Your task to perform on an android device: toggle show notifications on the lock screen Image 0: 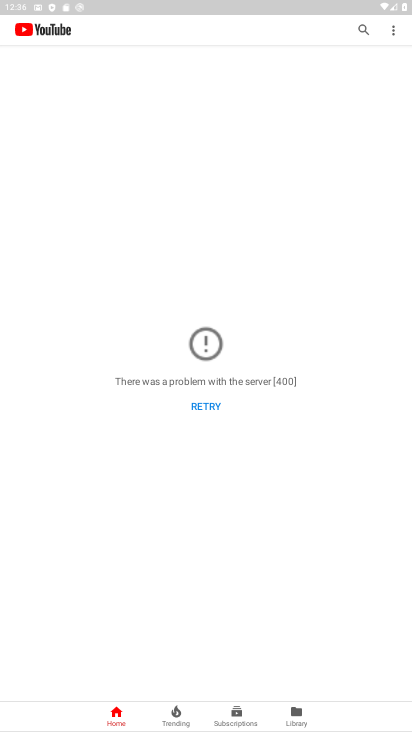
Step 0: press home button
Your task to perform on an android device: toggle show notifications on the lock screen Image 1: 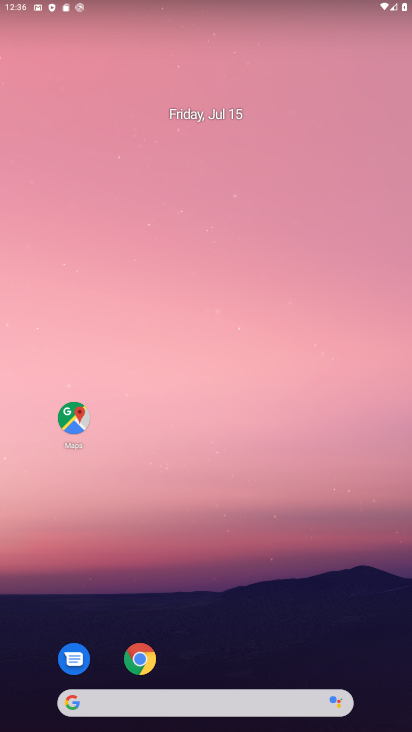
Step 1: drag from (214, 664) to (198, 125)
Your task to perform on an android device: toggle show notifications on the lock screen Image 2: 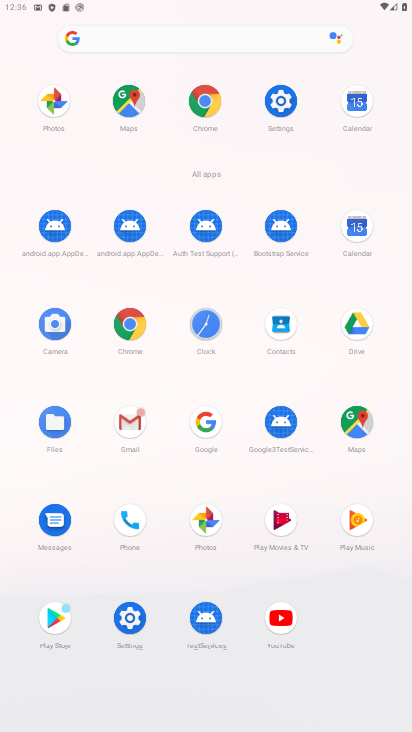
Step 2: click (285, 100)
Your task to perform on an android device: toggle show notifications on the lock screen Image 3: 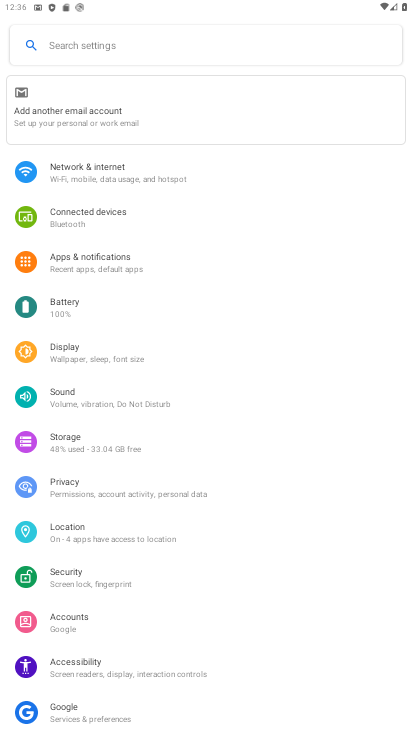
Step 3: click (82, 260)
Your task to perform on an android device: toggle show notifications on the lock screen Image 4: 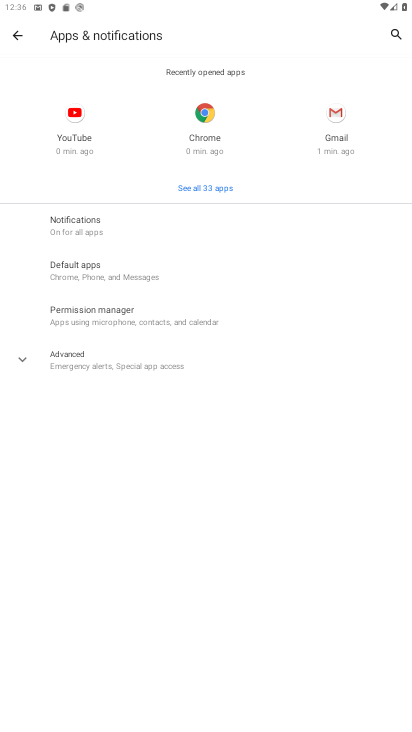
Step 4: click (83, 231)
Your task to perform on an android device: toggle show notifications on the lock screen Image 5: 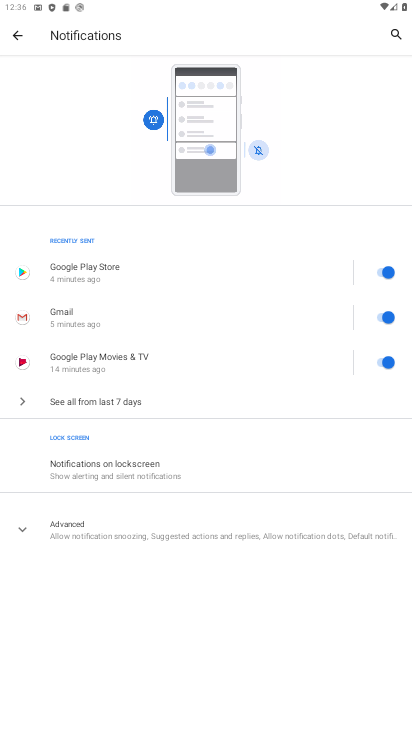
Step 5: click (89, 477)
Your task to perform on an android device: toggle show notifications on the lock screen Image 6: 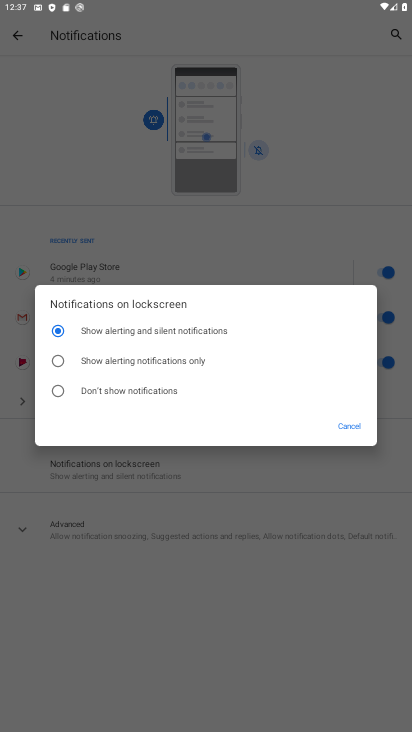
Step 6: click (54, 358)
Your task to perform on an android device: toggle show notifications on the lock screen Image 7: 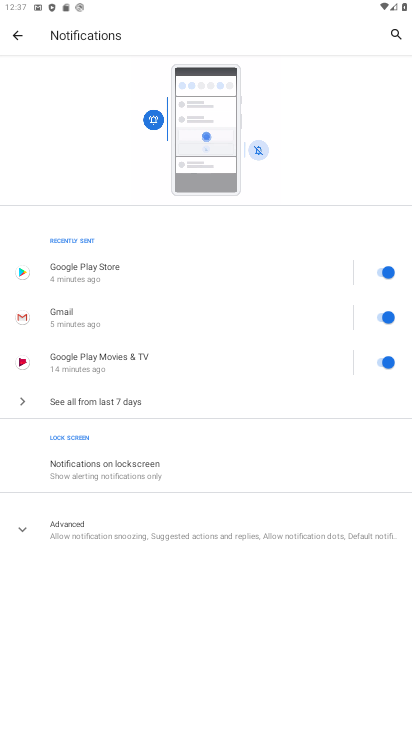
Step 7: task complete